Your task to perform on an android device: Set the phone to "Do not disturb". Image 0: 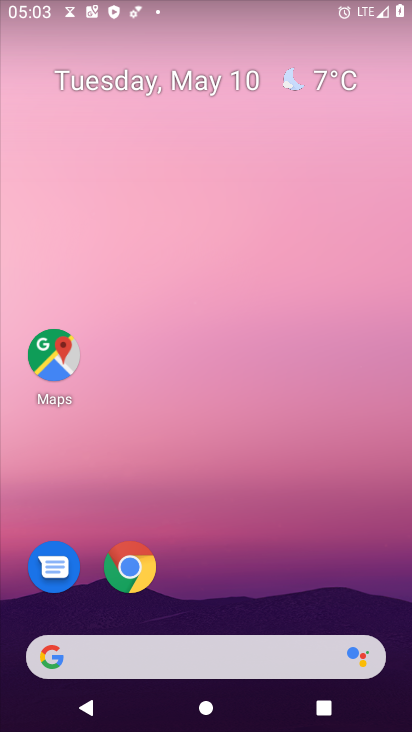
Step 0: drag from (271, 536) to (254, 114)
Your task to perform on an android device: Set the phone to "Do not disturb". Image 1: 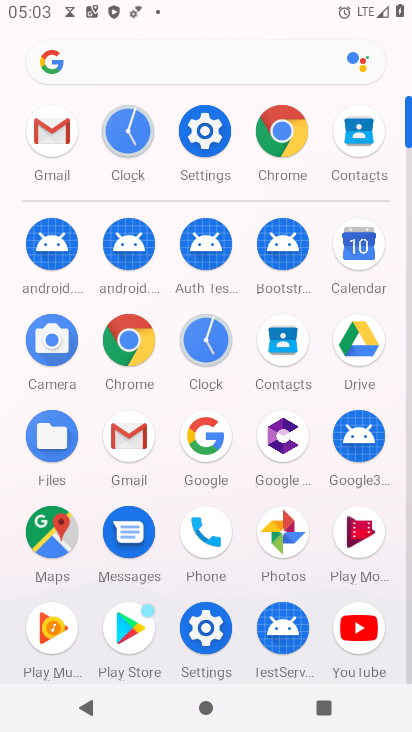
Step 1: click (204, 130)
Your task to perform on an android device: Set the phone to "Do not disturb". Image 2: 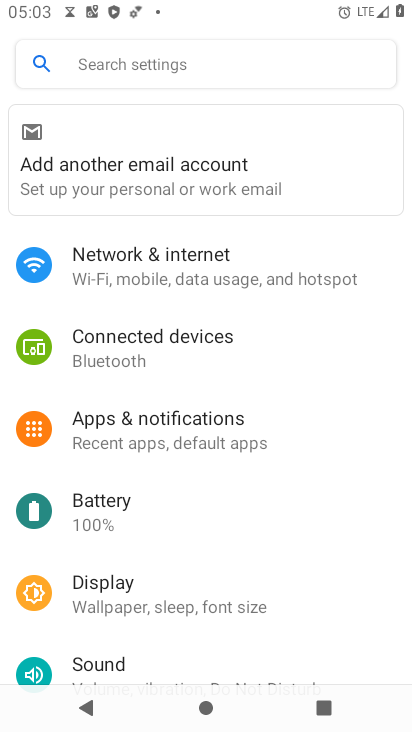
Step 2: drag from (166, 376) to (187, 278)
Your task to perform on an android device: Set the phone to "Do not disturb". Image 3: 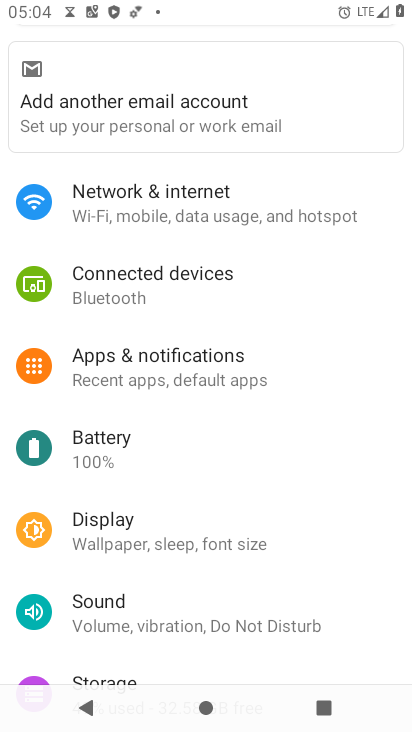
Step 3: drag from (178, 426) to (196, 360)
Your task to perform on an android device: Set the phone to "Do not disturb". Image 4: 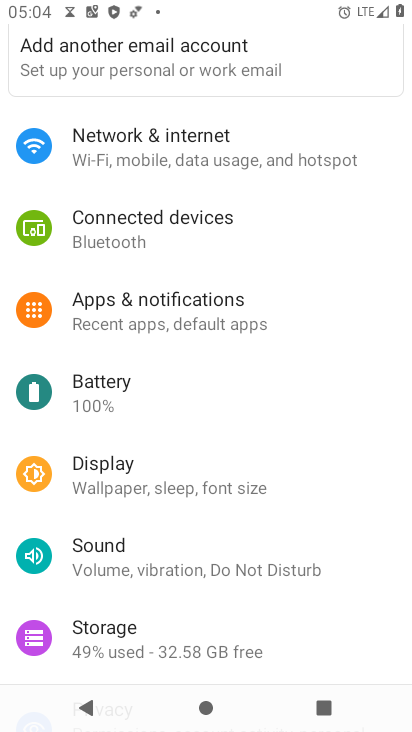
Step 4: drag from (199, 506) to (208, 413)
Your task to perform on an android device: Set the phone to "Do not disturb". Image 5: 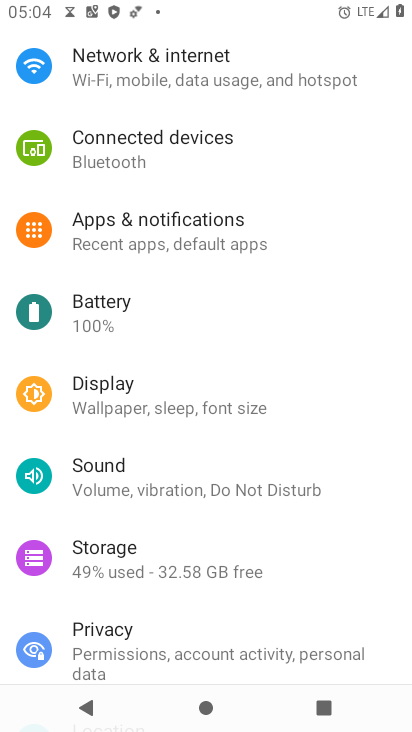
Step 5: click (180, 493)
Your task to perform on an android device: Set the phone to "Do not disturb". Image 6: 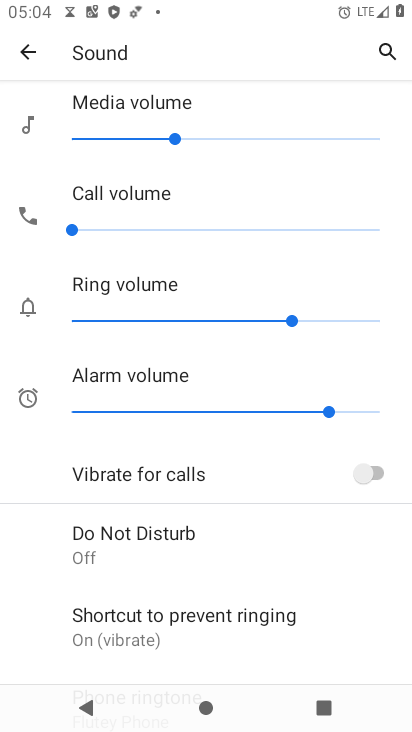
Step 6: click (181, 539)
Your task to perform on an android device: Set the phone to "Do not disturb". Image 7: 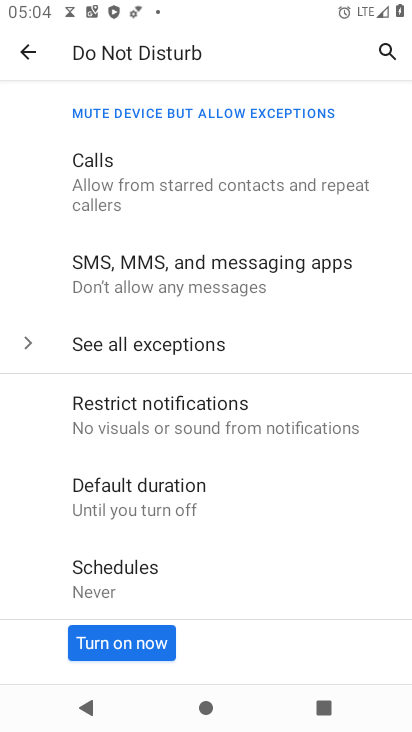
Step 7: click (129, 641)
Your task to perform on an android device: Set the phone to "Do not disturb". Image 8: 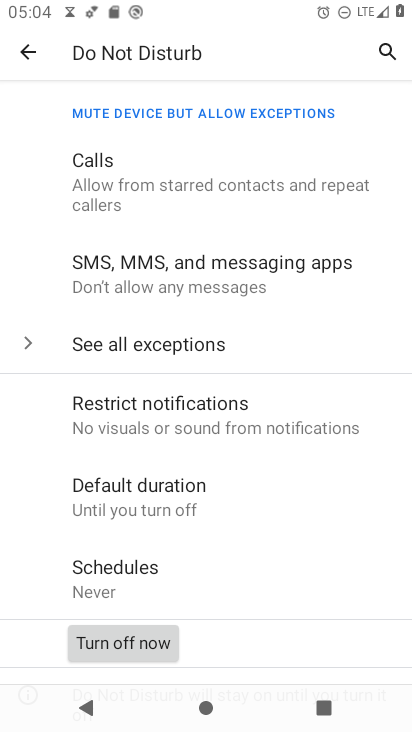
Step 8: task complete